Your task to perform on an android device: toggle airplane mode Image 0: 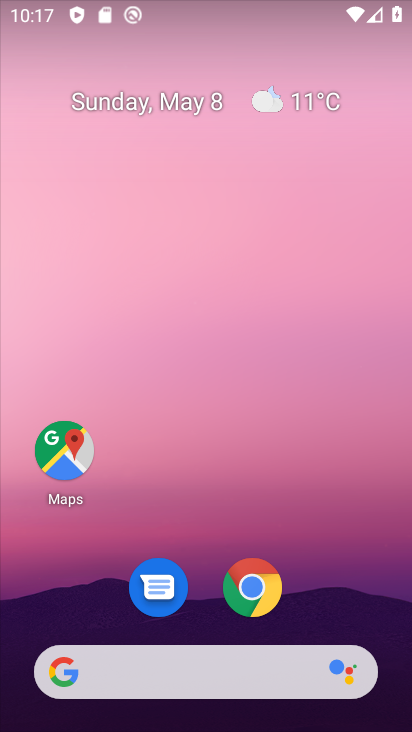
Step 0: click (51, 437)
Your task to perform on an android device: toggle airplane mode Image 1: 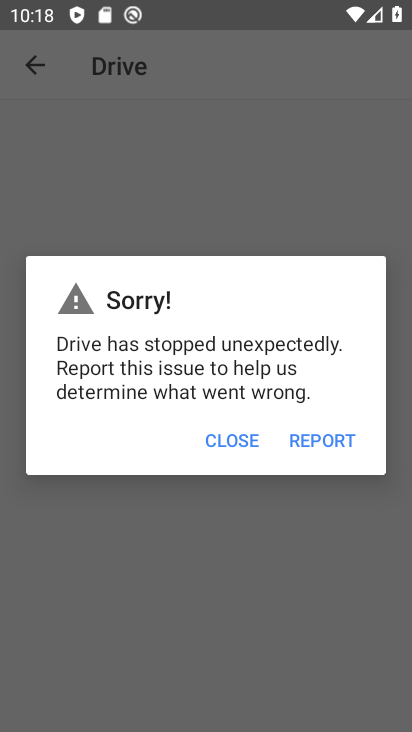
Step 1: press back button
Your task to perform on an android device: toggle airplane mode Image 2: 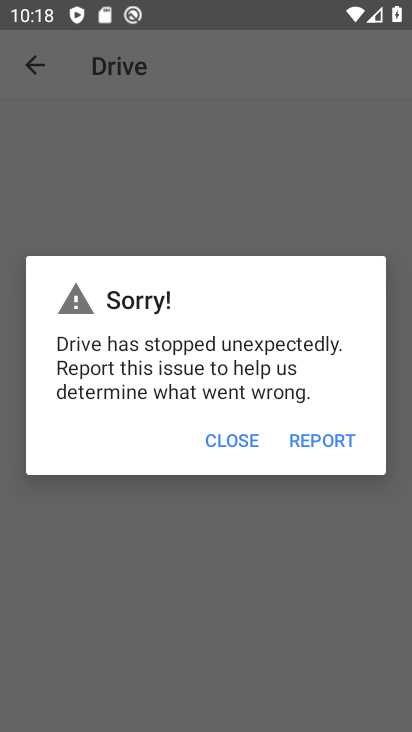
Step 2: press home button
Your task to perform on an android device: toggle airplane mode Image 3: 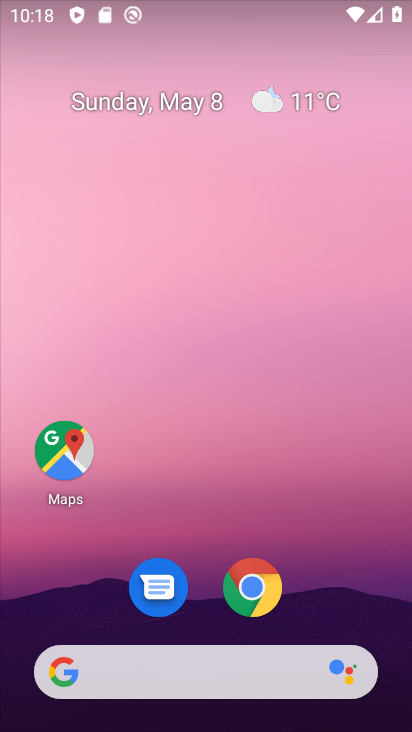
Step 3: drag from (186, 654) to (320, 102)
Your task to perform on an android device: toggle airplane mode Image 4: 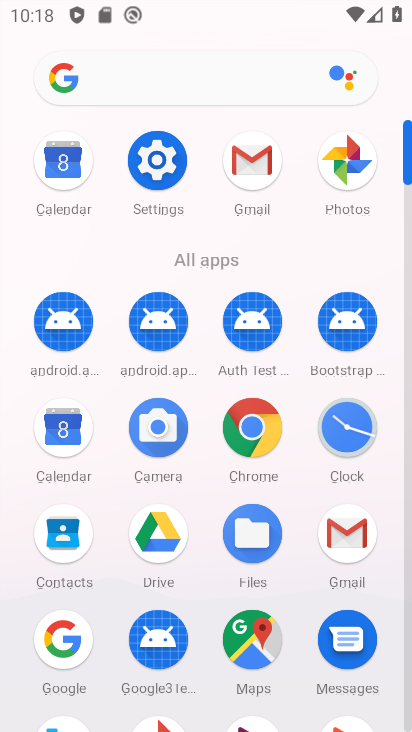
Step 4: click (156, 193)
Your task to perform on an android device: toggle airplane mode Image 5: 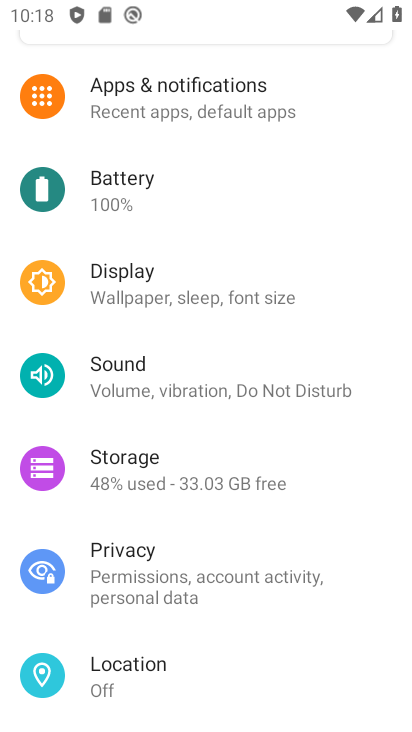
Step 5: drag from (271, 133) to (257, 458)
Your task to perform on an android device: toggle airplane mode Image 6: 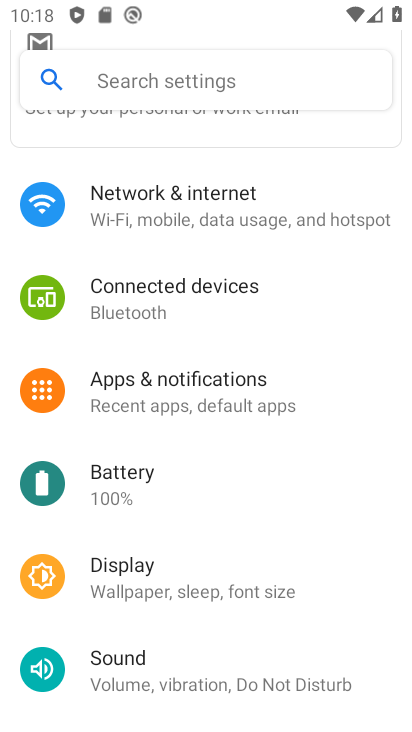
Step 6: drag from (213, 230) to (198, 331)
Your task to perform on an android device: toggle airplane mode Image 7: 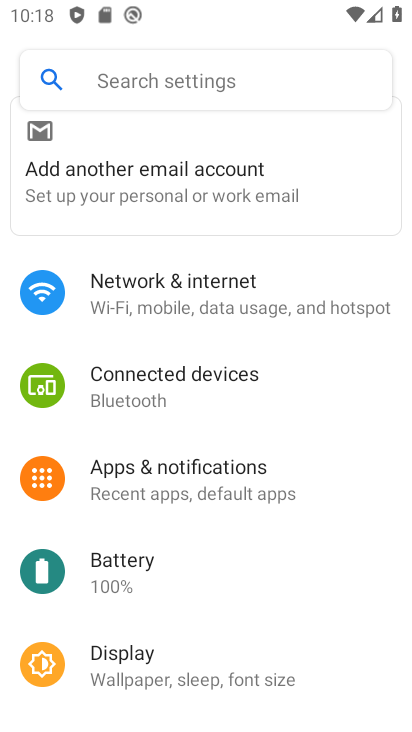
Step 7: click (219, 324)
Your task to perform on an android device: toggle airplane mode Image 8: 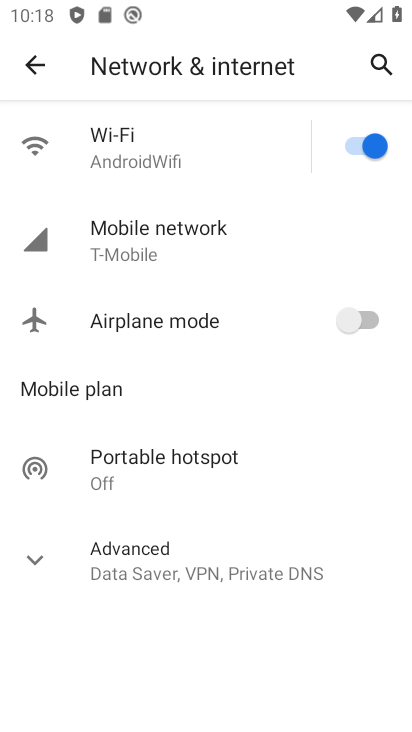
Step 8: click (365, 315)
Your task to perform on an android device: toggle airplane mode Image 9: 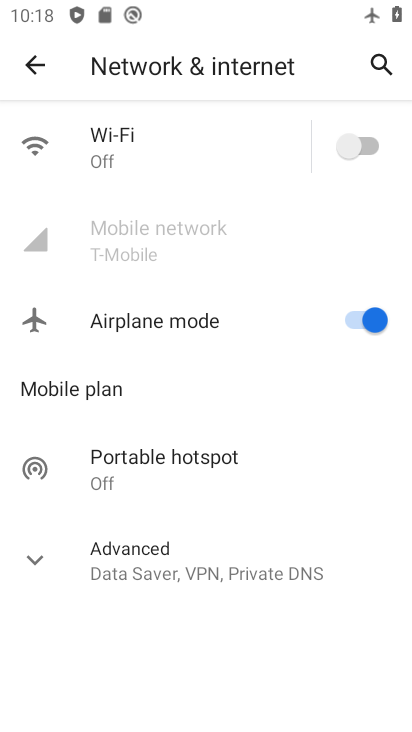
Step 9: task complete